Your task to perform on an android device: move an email to a new category in the gmail app Image 0: 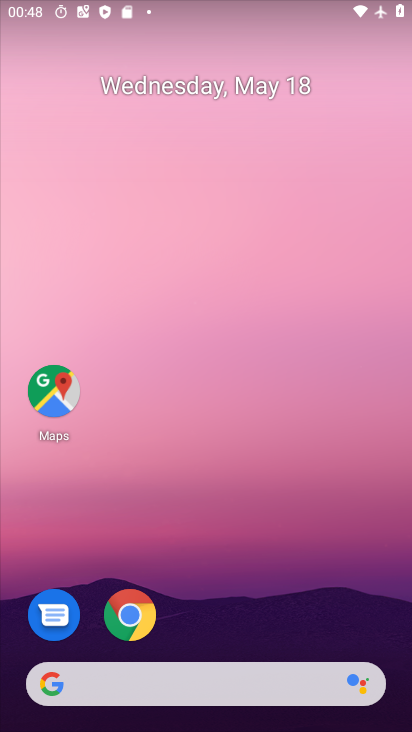
Step 0: drag from (253, 632) to (255, 262)
Your task to perform on an android device: move an email to a new category in the gmail app Image 1: 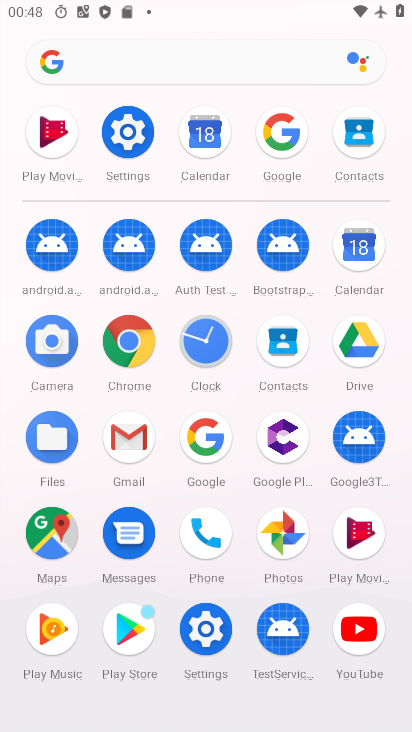
Step 1: click (143, 441)
Your task to perform on an android device: move an email to a new category in the gmail app Image 2: 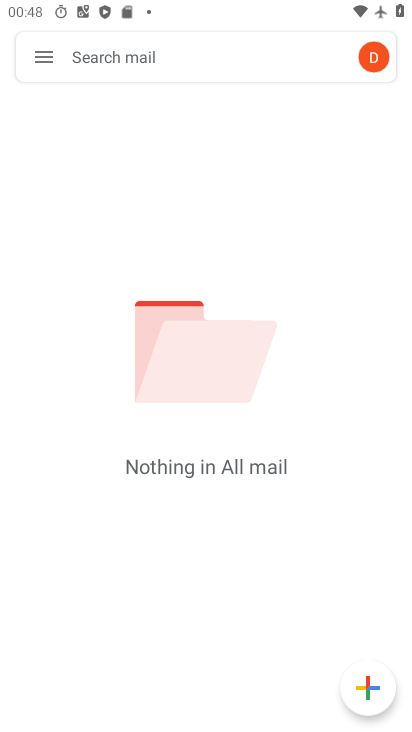
Step 2: click (47, 45)
Your task to perform on an android device: move an email to a new category in the gmail app Image 3: 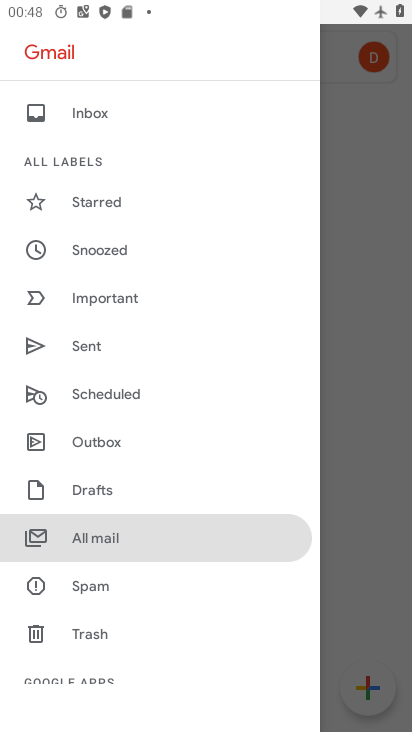
Step 3: click (126, 551)
Your task to perform on an android device: move an email to a new category in the gmail app Image 4: 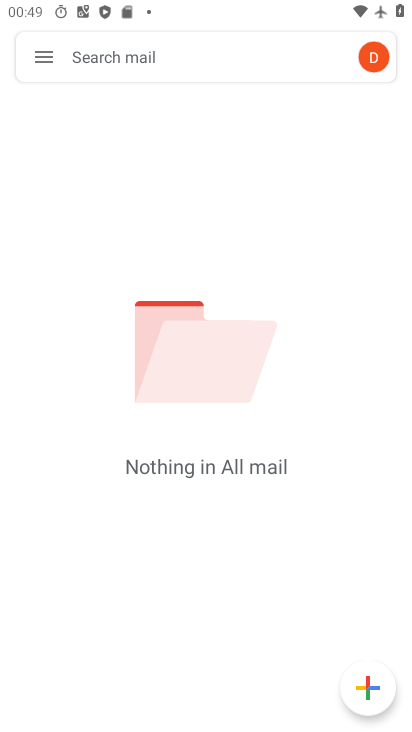
Step 4: task complete